Your task to perform on an android device: star an email in the gmail app Image 0: 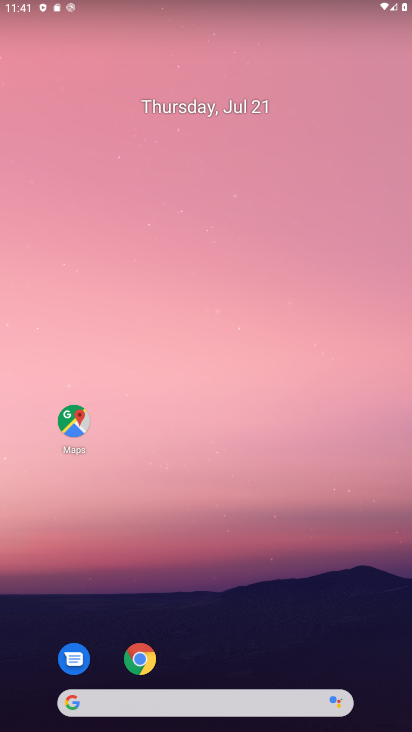
Step 0: task complete